Your task to perform on an android device: Go to Maps Image 0: 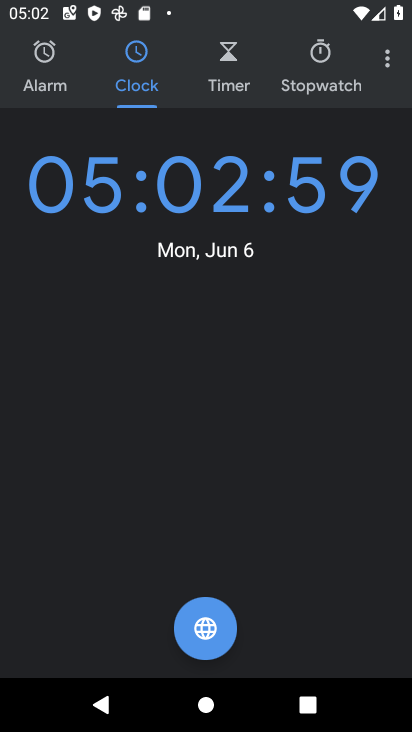
Step 0: task complete